Your task to perform on an android device: Open Amazon Image 0: 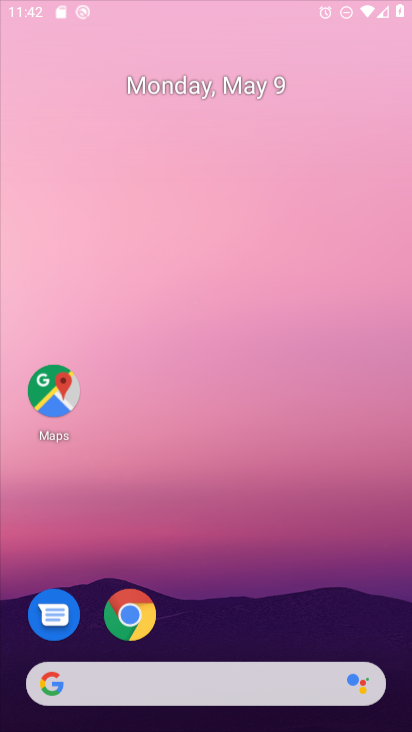
Step 0: drag from (269, 647) to (282, 312)
Your task to perform on an android device: Open Amazon Image 1: 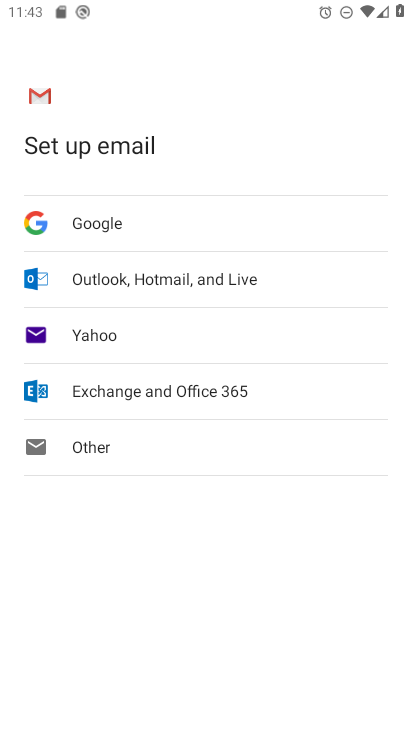
Step 1: press home button
Your task to perform on an android device: Open Amazon Image 2: 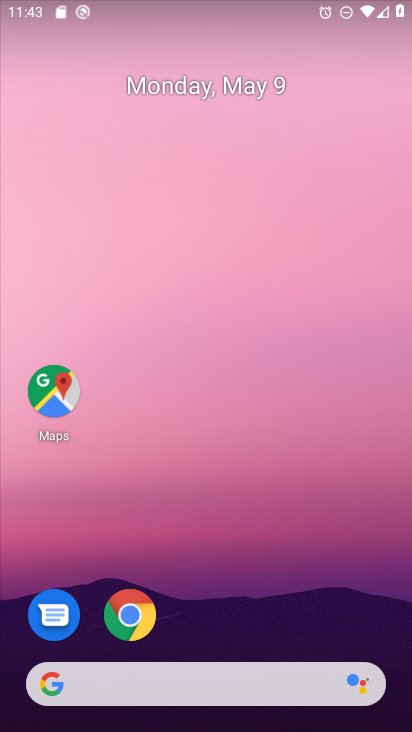
Step 2: drag from (296, 708) to (329, 242)
Your task to perform on an android device: Open Amazon Image 3: 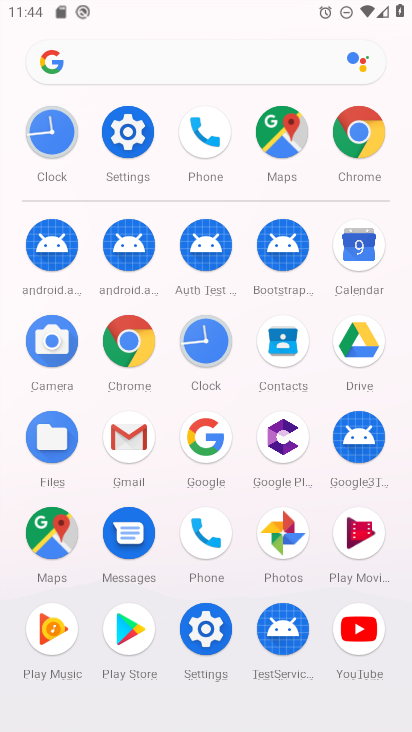
Step 3: click (134, 348)
Your task to perform on an android device: Open Amazon Image 4: 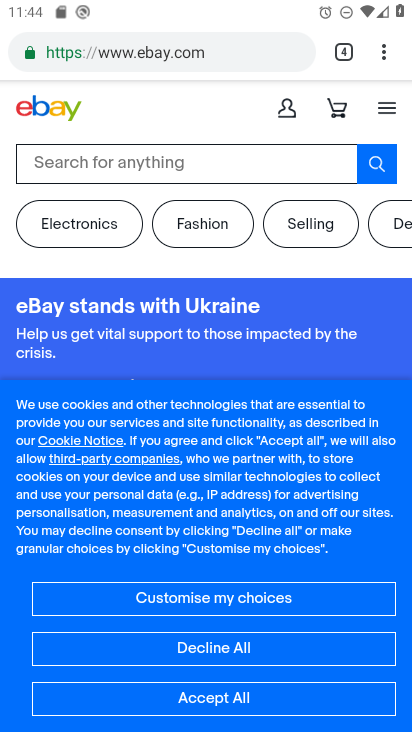
Step 4: click (342, 52)
Your task to perform on an android device: Open Amazon Image 5: 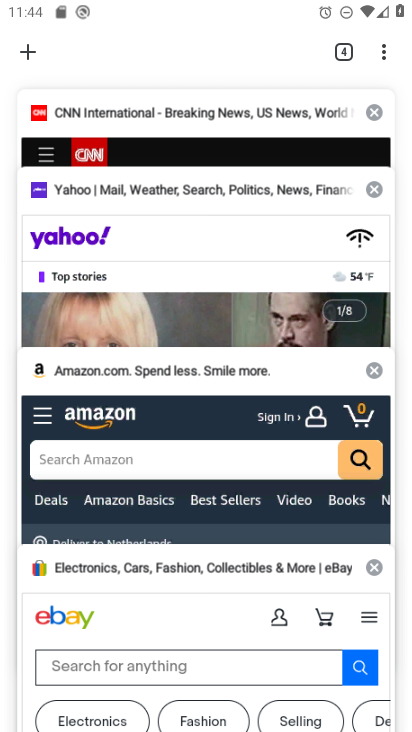
Step 5: click (27, 50)
Your task to perform on an android device: Open Amazon Image 6: 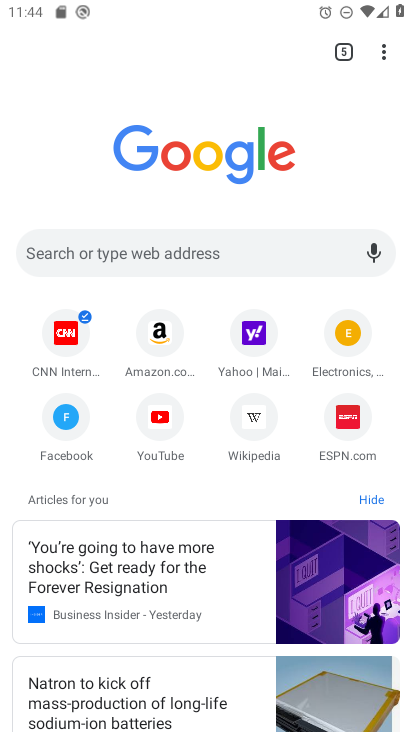
Step 6: click (167, 344)
Your task to perform on an android device: Open Amazon Image 7: 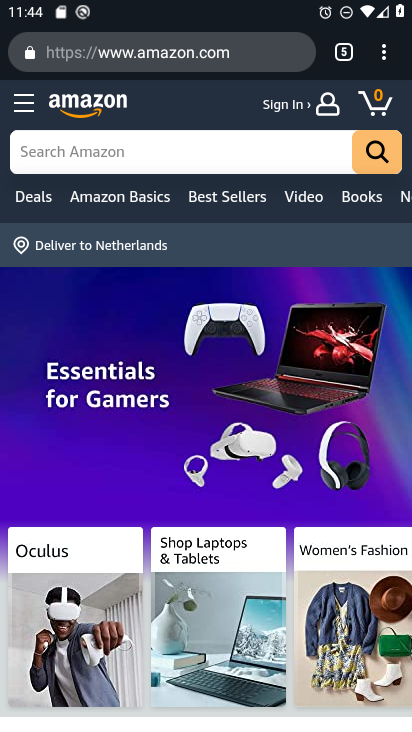
Step 7: task complete